Your task to perform on an android device: Go to calendar. Show me events next week Image 0: 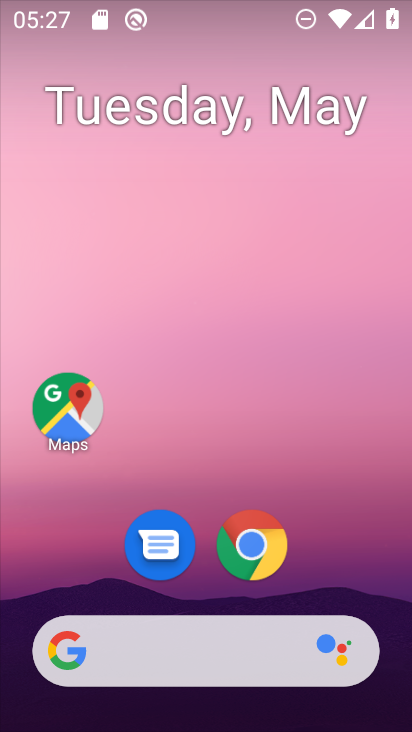
Step 0: drag from (375, 520) to (284, 38)
Your task to perform on an android device: Go to calendar. Show me events next week Image 1: 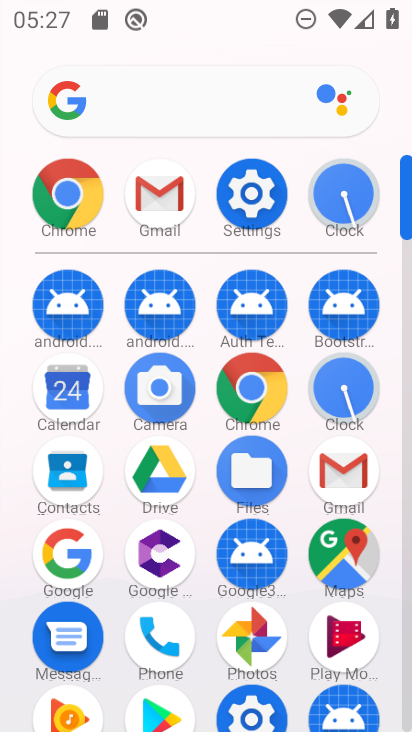
Step 1: drag from (12, 611) to (13, 282)
Your task to perform on an android device: Go to calendar. Show me events next week Image 2: 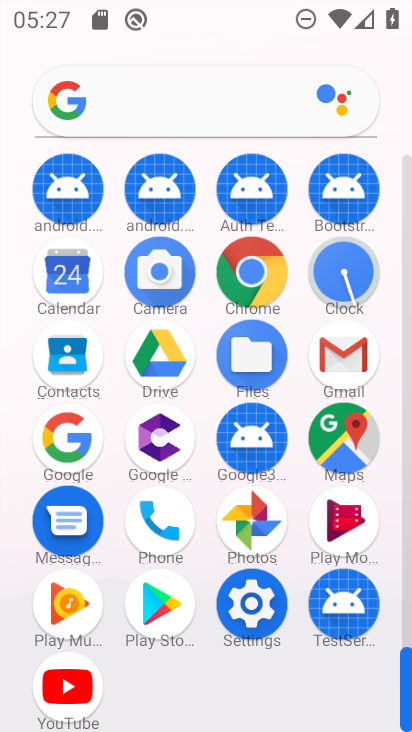
Step 2: click (68, 269)
Your task to perform on an android device: Go to calendar. Show me events next week Image 3: 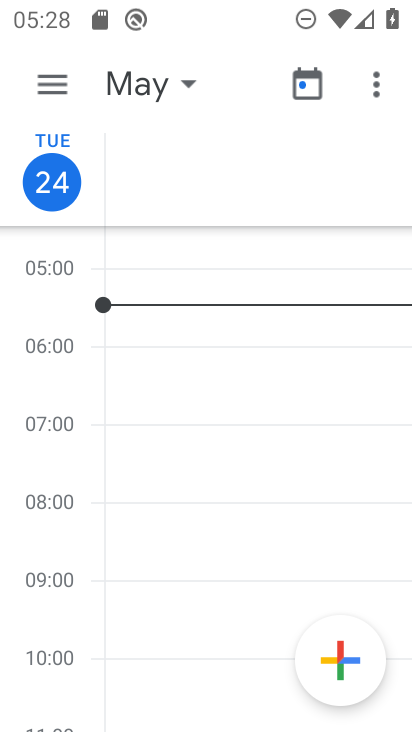
Step 3: click (60, 66)
Your task to perform on an android device: Go to calendar. Show me events next week Image 4: 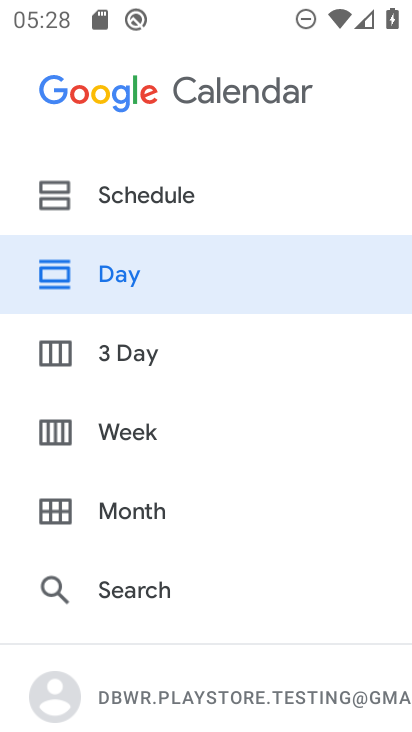
Step 4: click (142, 437)
Your task to perform on an android device: Go to calendar. Show me events next week Image 5: 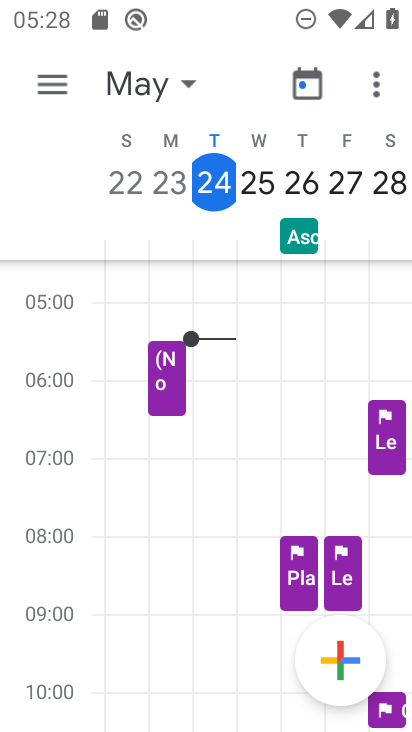
Step 5: task complete